Your task to perform on an android device: open sync settings in chrome Image 0: 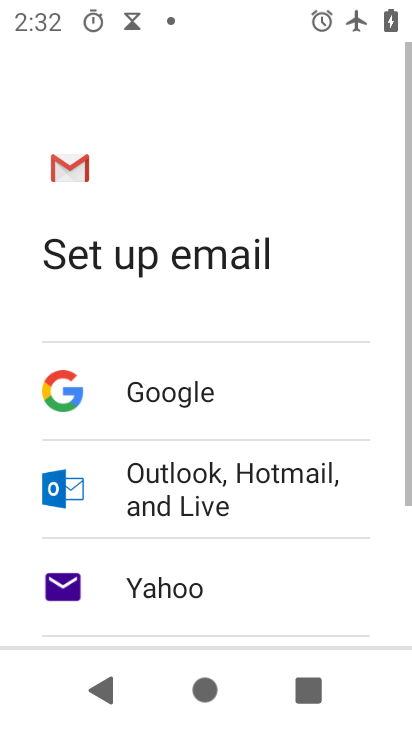
Step 0: press home button
Your task to perform on an android device: open sync settings in chrome Image 1: 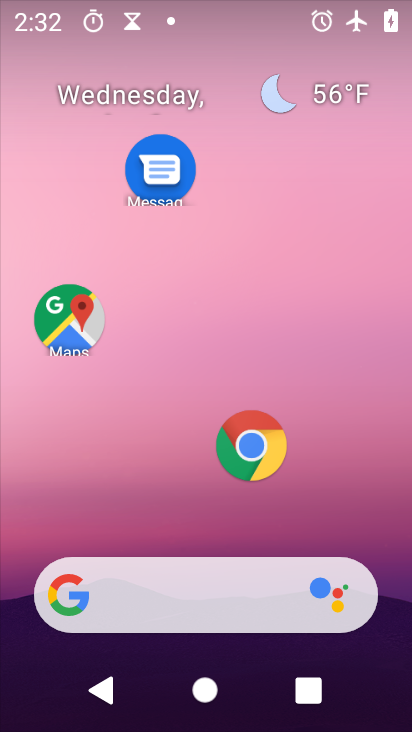
Step 1: drag from (196, 474) to (279, 167)
Your task to perform on an android device: open sync settings in chrome Image 2: 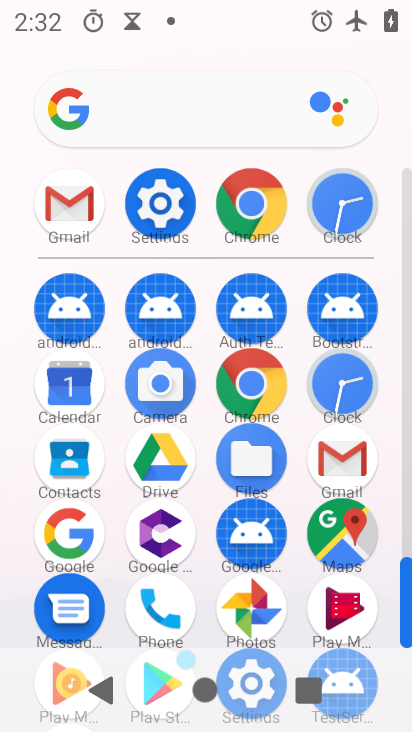
Step 2: click (251, 398)
Your task to perform on an android device: open sync settings in chrome Image 3: 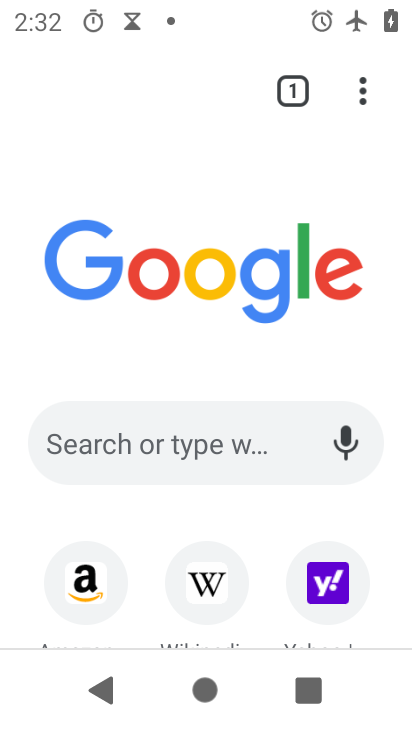
Step 3: click (364, 96)
Your task to perform on an android device: open sync settings in chrome Image 4: 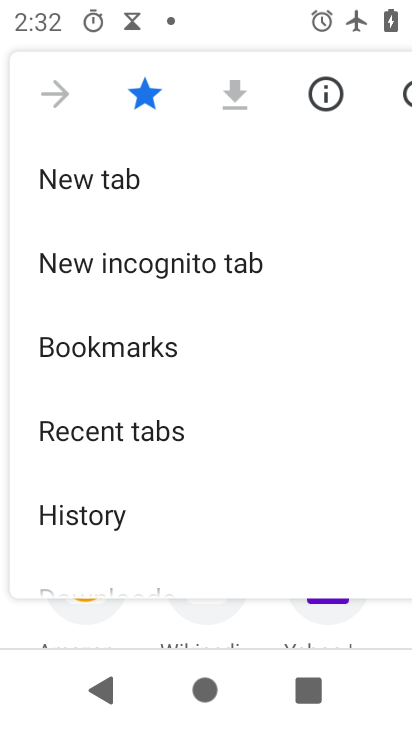
Step 4: drag from (183, 472) to (234, 161)
Your task to perform on an android device: open sync settings in chrome Image 5: 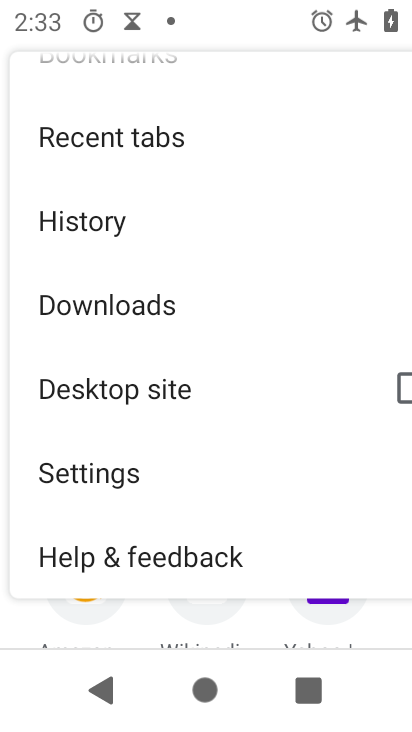
Step 5: click (154, 483)
Your task to perform on an android device: open sync settings in chrome Image 6: 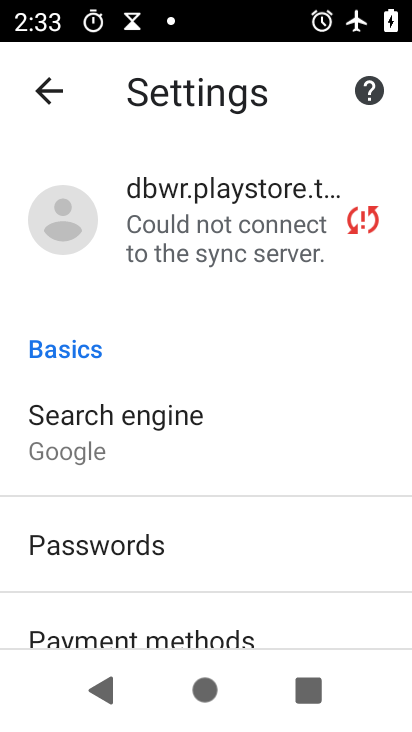
Step 6: click (229, 255)
Your task to perform on an android device: open sync settings in chrome Image 7: 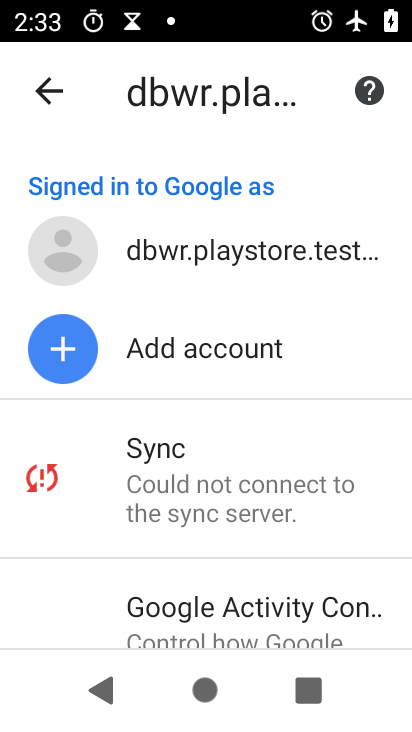
Step 7: click (225, 481)
Your task to perform on an android device: open sync settings in chrome Image 8: 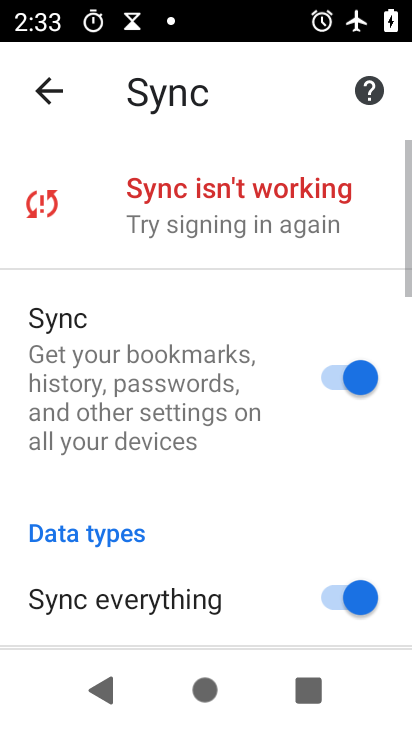
Step 8: task complete